Your task to perform on an android device: Search for pizza restaurants on Maps Image 0: 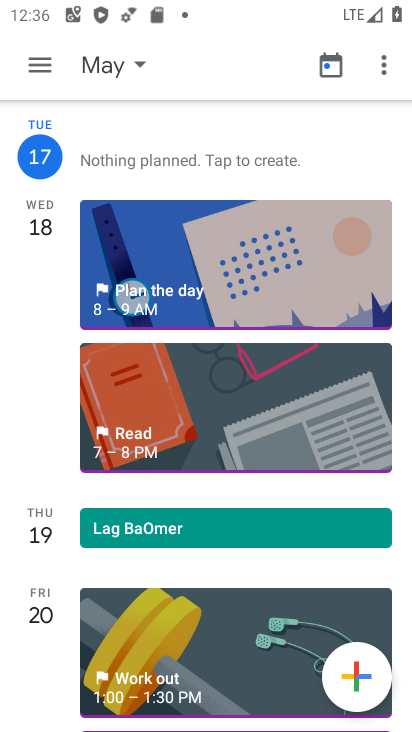
Step 0: press home button
Your task to perform on an android device: Search for pizza restaurants on Maps Image 1: 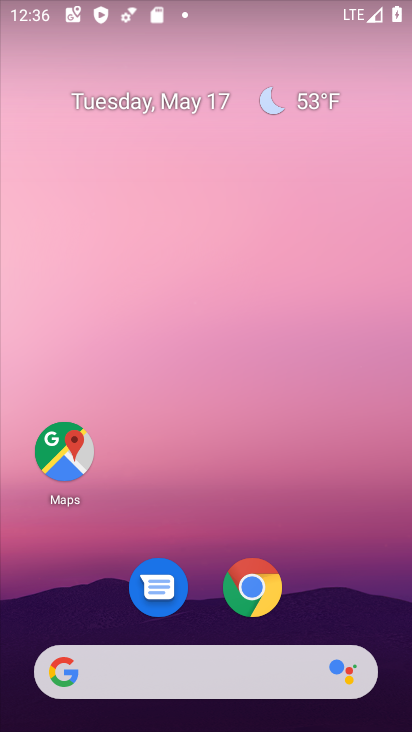
Step 1: click (62, 452)
Your task to perform on an android device: Search for pizza restaurants on Maps Image 2: 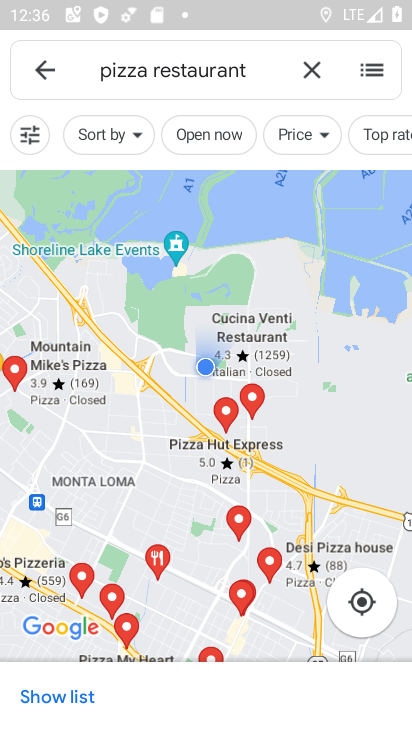
Step 2: task complete